Your task to perform on an android device: open app "Adobe Acrobat Reader" (install if not already installed), go to login, and select forgot password Image 0: 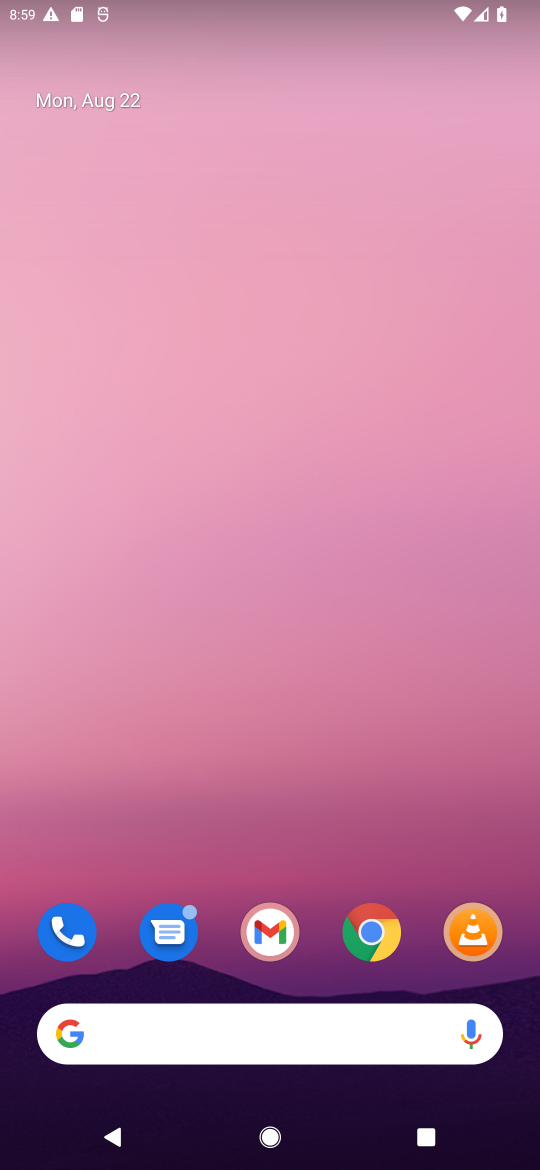
Step 0: drag from (321, 966) to (265, 11)
Your task to perform on an android device: open app "Adobe Acrobat Reader" (install if not already installed), go to login, and select forgot password Image 1: 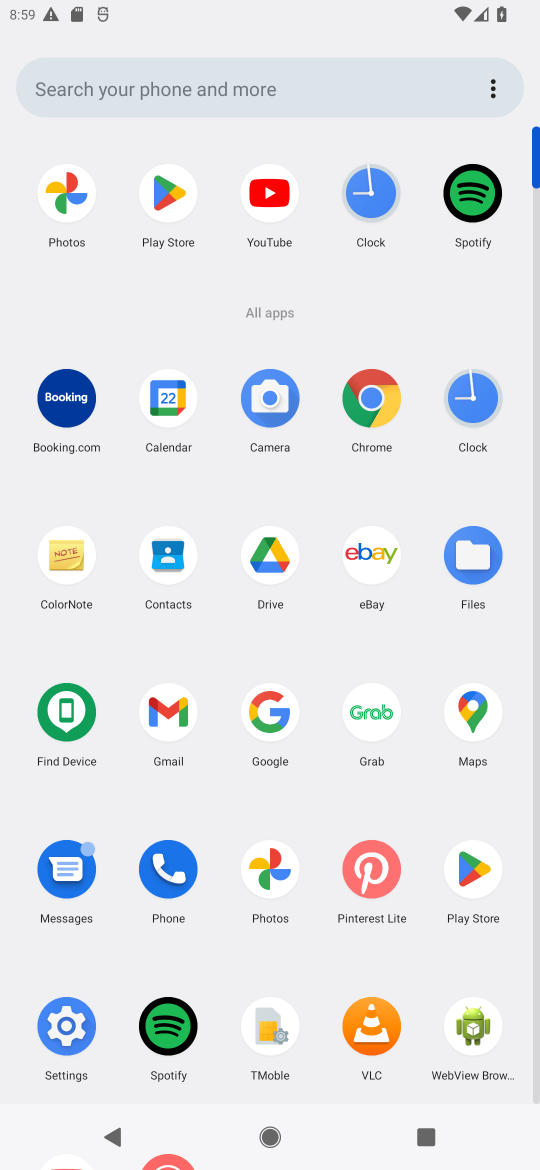
Step 1: click (178, 217)
Your task to perform on an android device: open app "Adobe Acrobat Reader" (install if not already installed), go to login, and select forgot password Image 2: 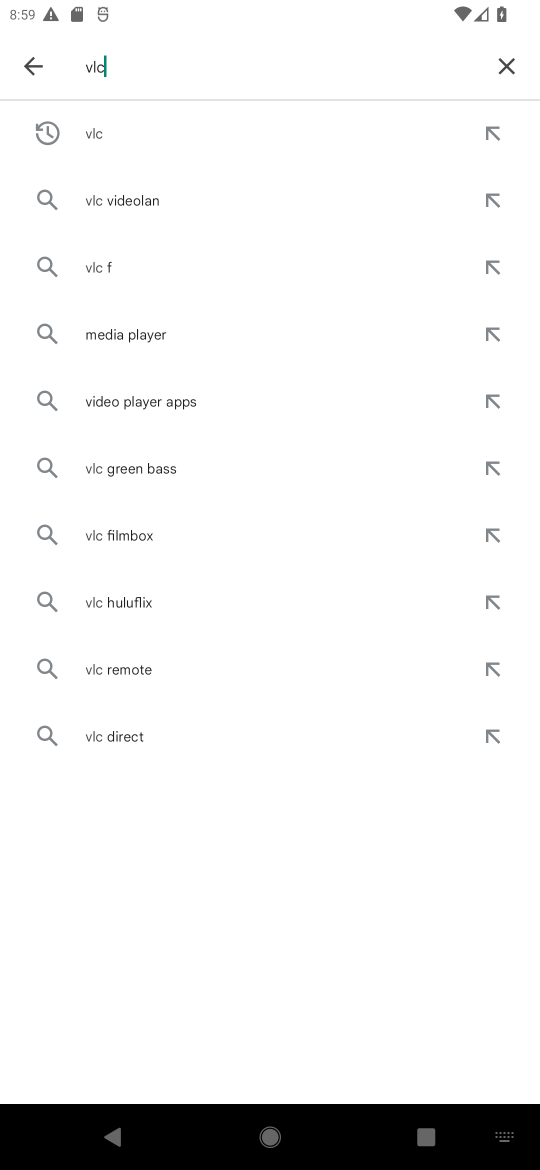
Step 2: click (499, 70)
Your task to perform on an android device: open app "Adobe Acrobat Reader" (install if not already installed), go to login, and select forgot password Image 3: 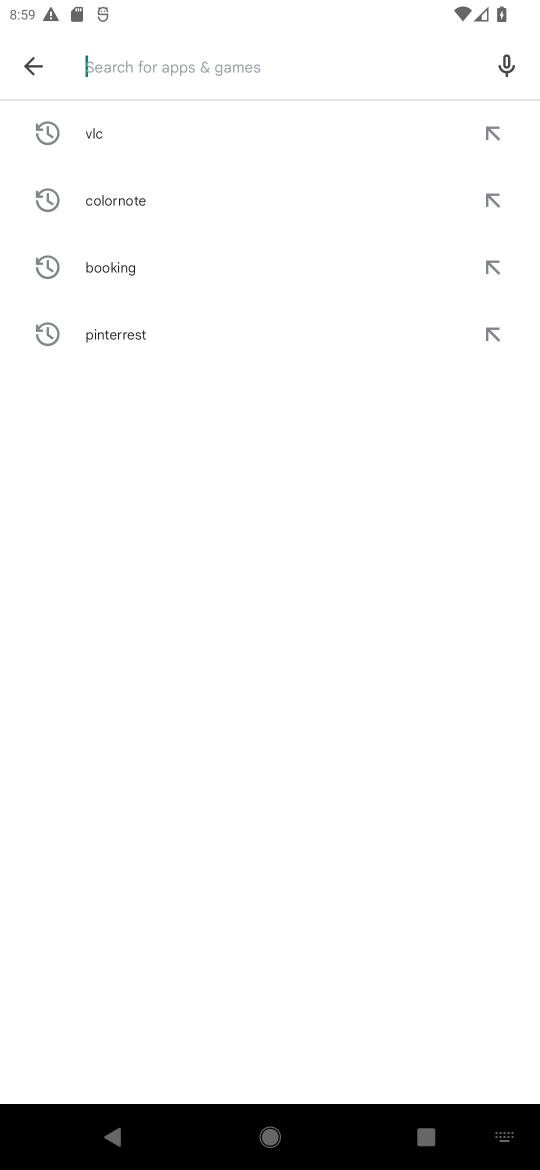
Step 3: type "abobe"
Your task to perform on an android device: open app "Adobe Acrobat Reader" (install if not already installed), go to login, and select forgot password Image 4: 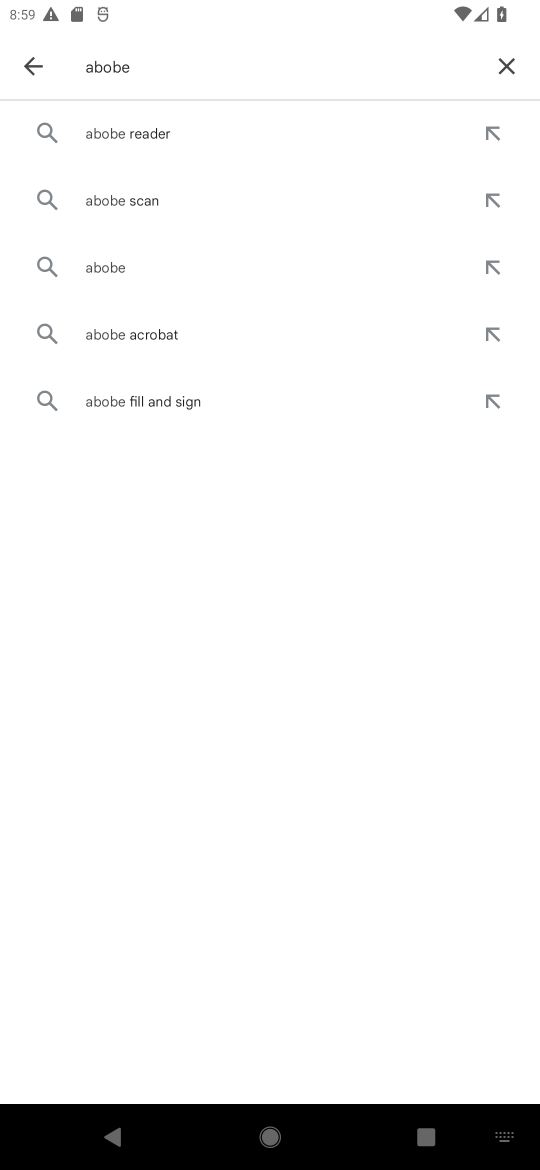
Step 4: click (216, 283)
Your task to perform on an android device: open app "Adobe Acrobat Reader" (install if not already installed), go to login, and select forgot password Image 5: 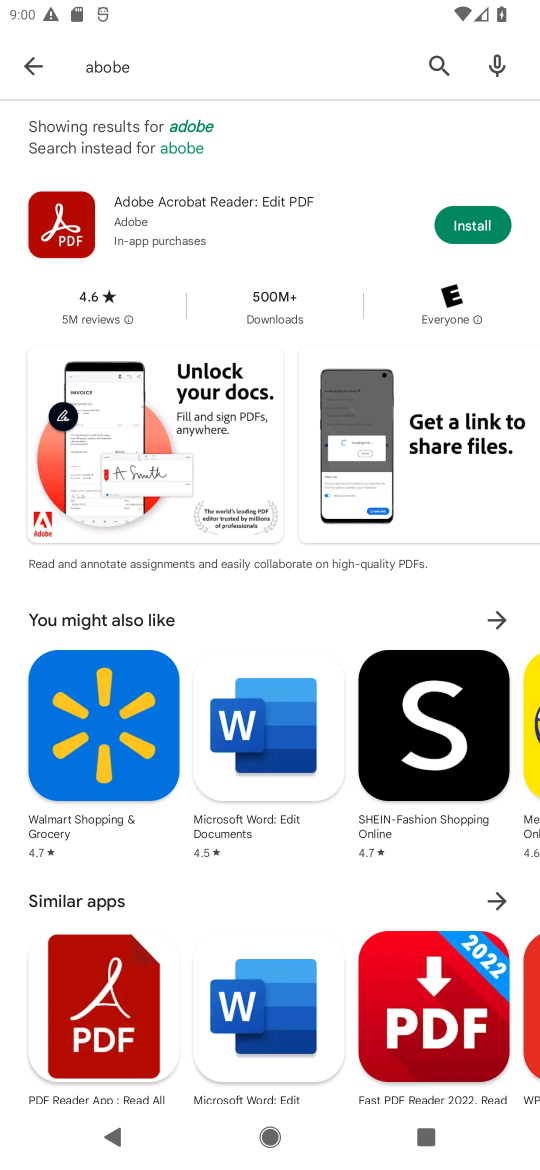
Step 5: click (451, 234)
Your task to perform on an android device: open app "Adobe Acrobat Reader" (install if not already installed), go to login, and select forgot password Image 6: 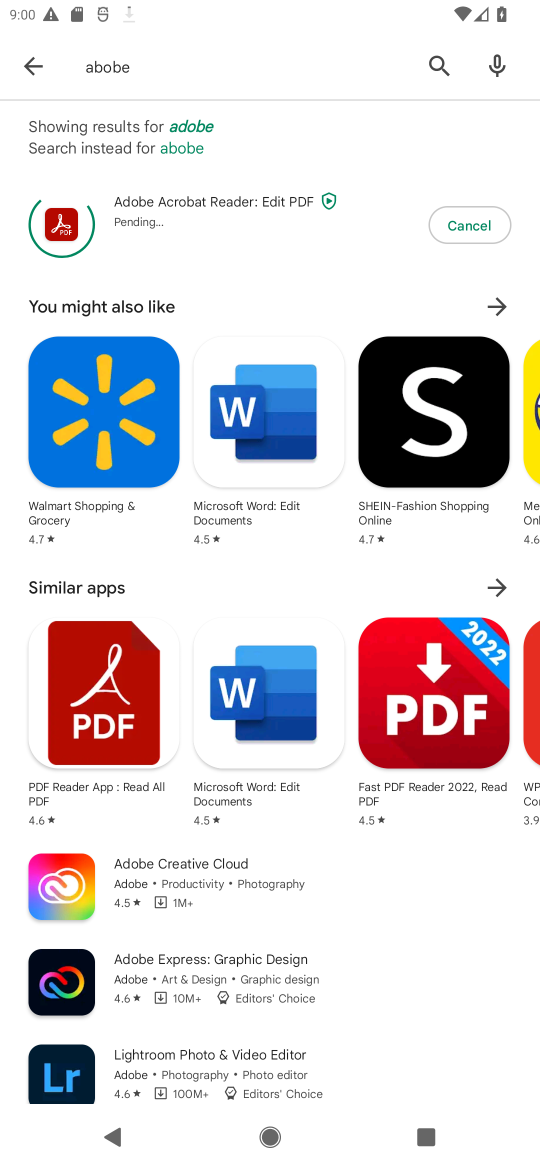
Step 6: task complete